Your task to perform on an android device: Open a new incognito window in the chrome app Image 0: 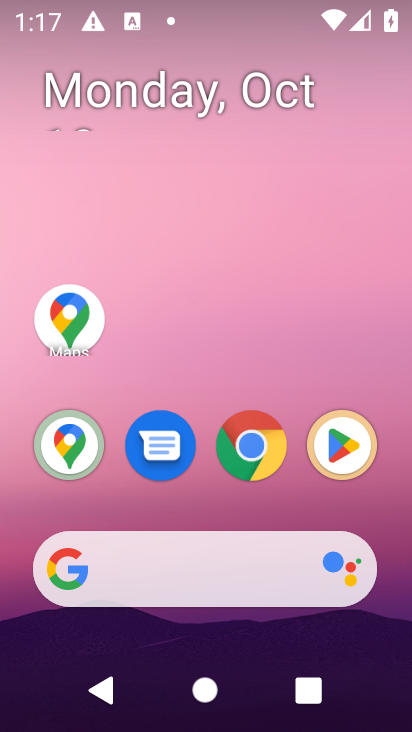
Step 0: click (248, 437)
Your task to perform on an android device: Open a new incognito window in the chrome app Image 1: 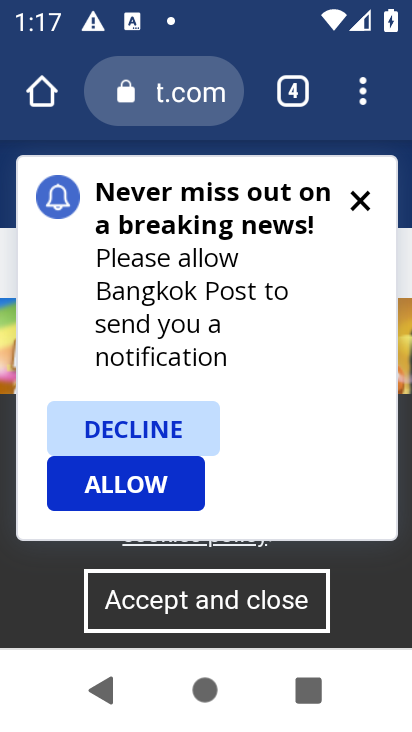
Step 1: click (365, 87)
Your task to perform on an android device: Open a new incognito window in the chrome app Image 2: 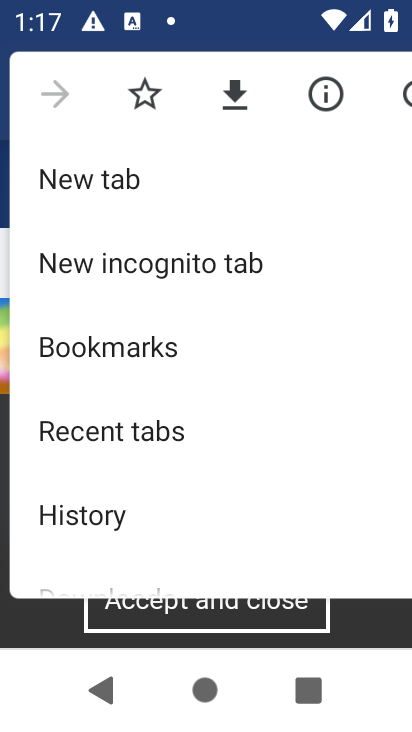
Step 2: click (207, 268)
Your task to perform on an android device: Open a new incognito window in the chrome app Image 3: 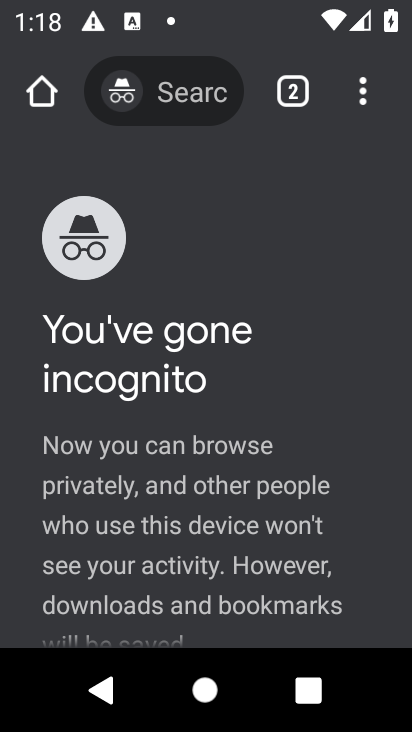
Step 3: task complete